Your task to perform on an android device: uninstall "McDonald's" Image 0: 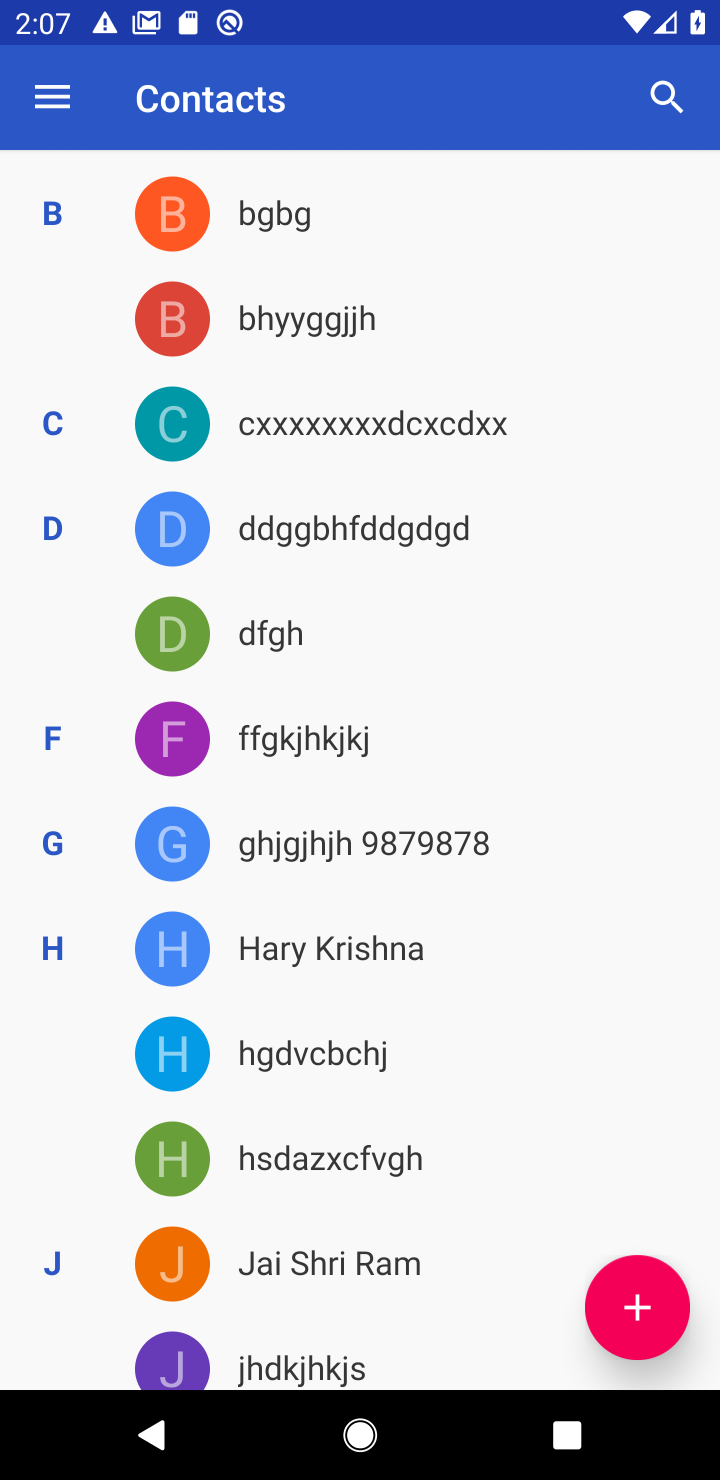
Step 0: press home button
Your task to perform on an android device: uninstall "McDonald's" Image 1: 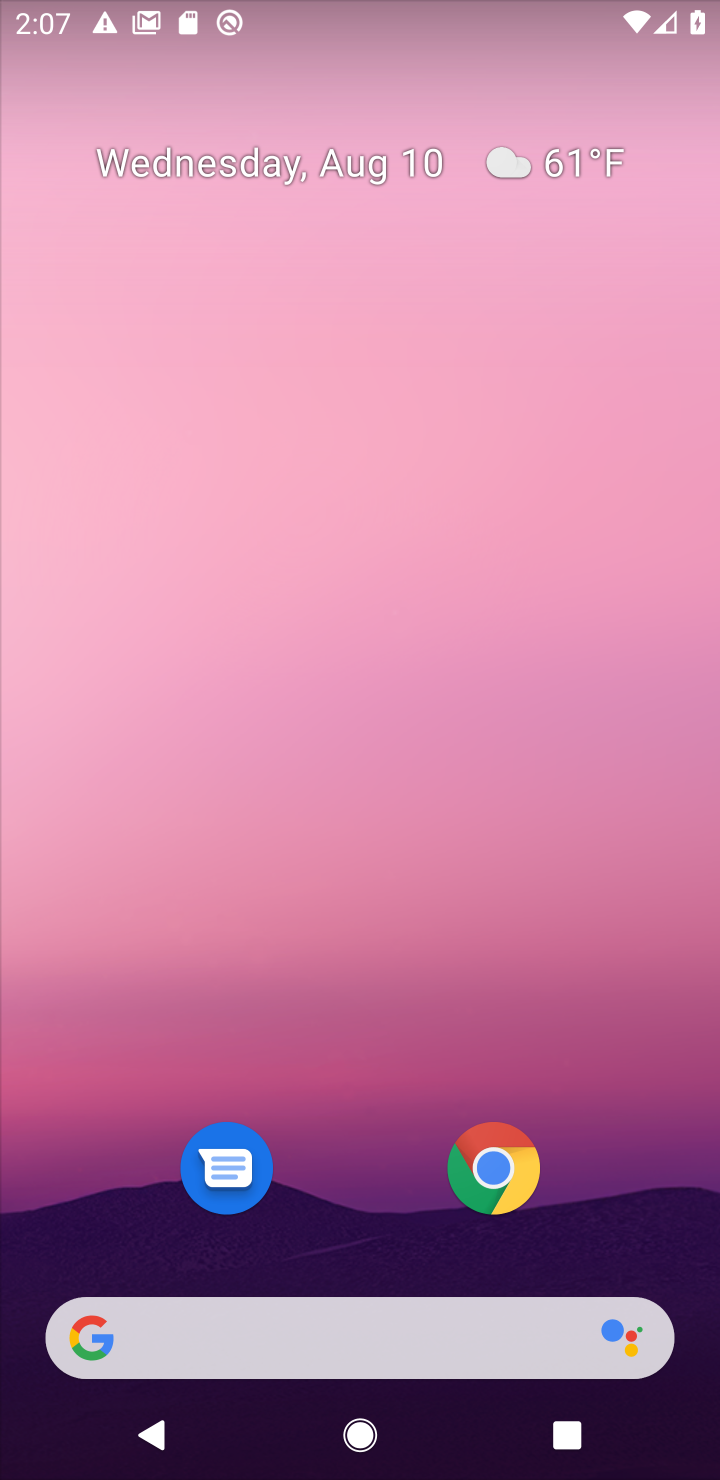
Step 1: drag from (362, 1306) to (418, 180)
Your task to perform on an android device: uninstall "McDonald's" Image 2: 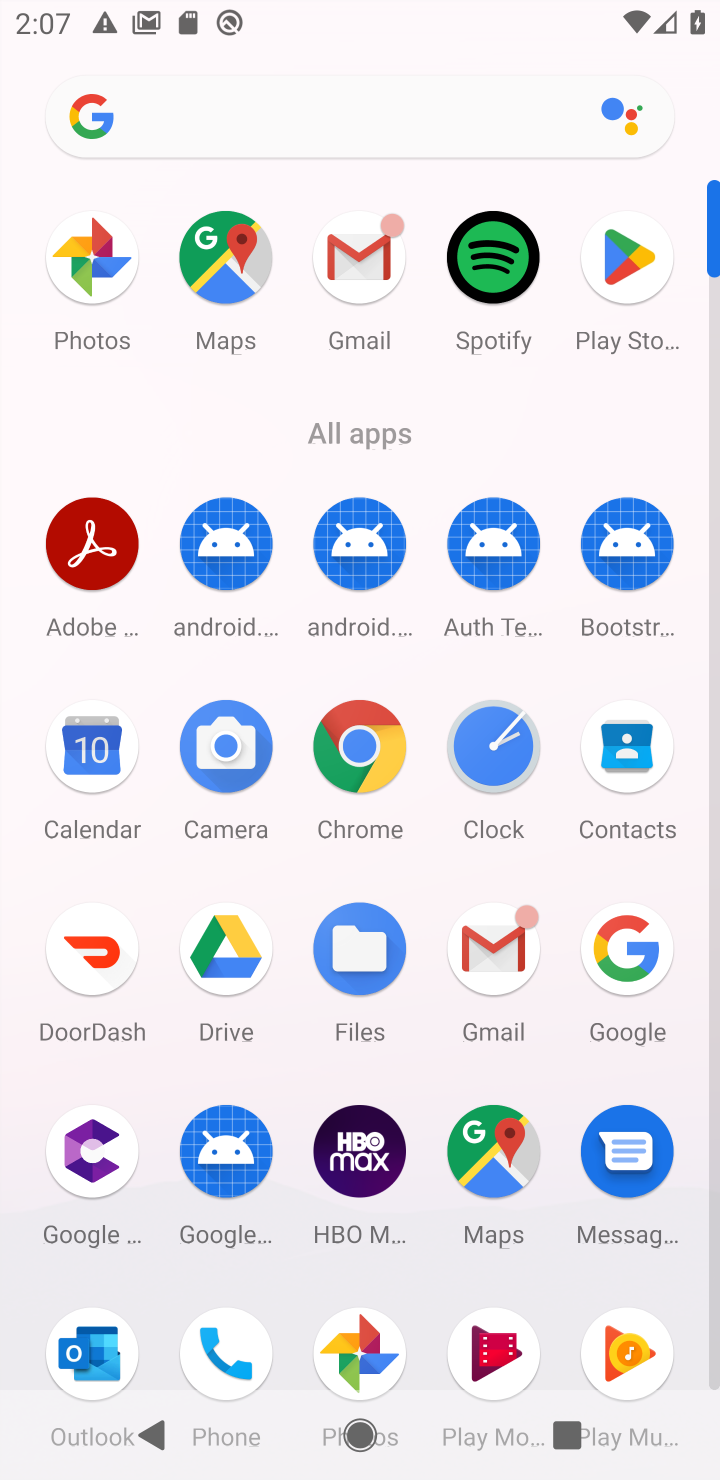
Step 2: click (622, 246)
Your task to perform on an android device: uninstall "McDonald's" Image 3: 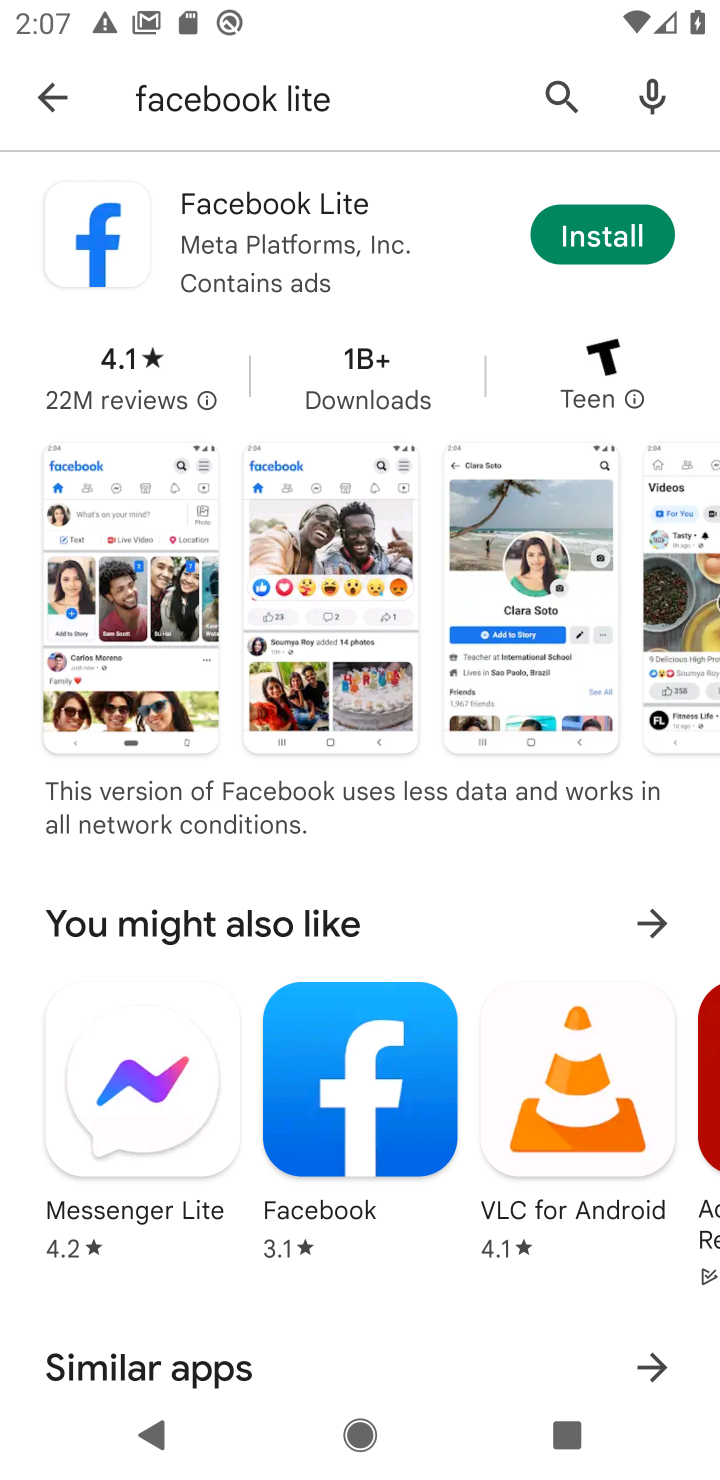
Step 3: press back button
Your task to perform on an android device: uninstall "McDonald's" Image 4: 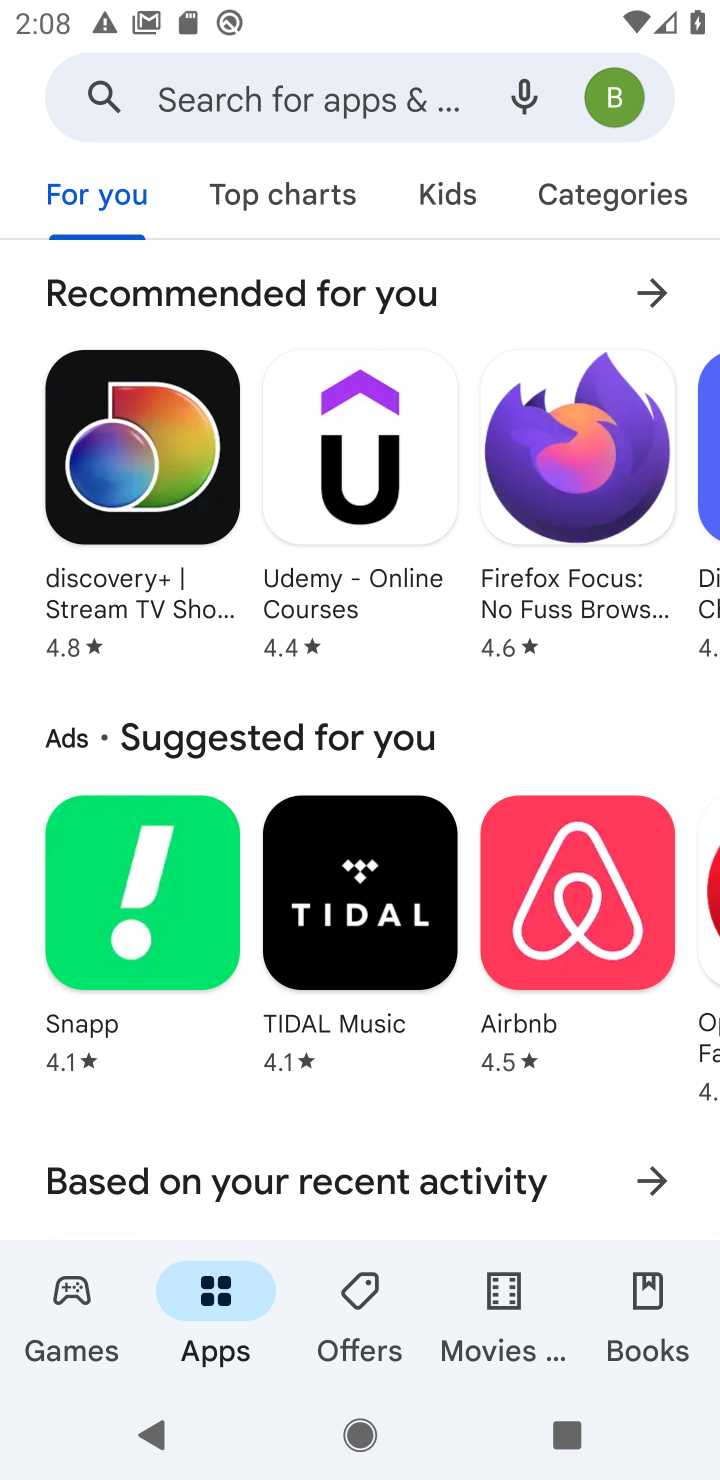
Step 4: click (314, 93)
Your task to perform on an android device: uninstall "McDonald's" Image 5: 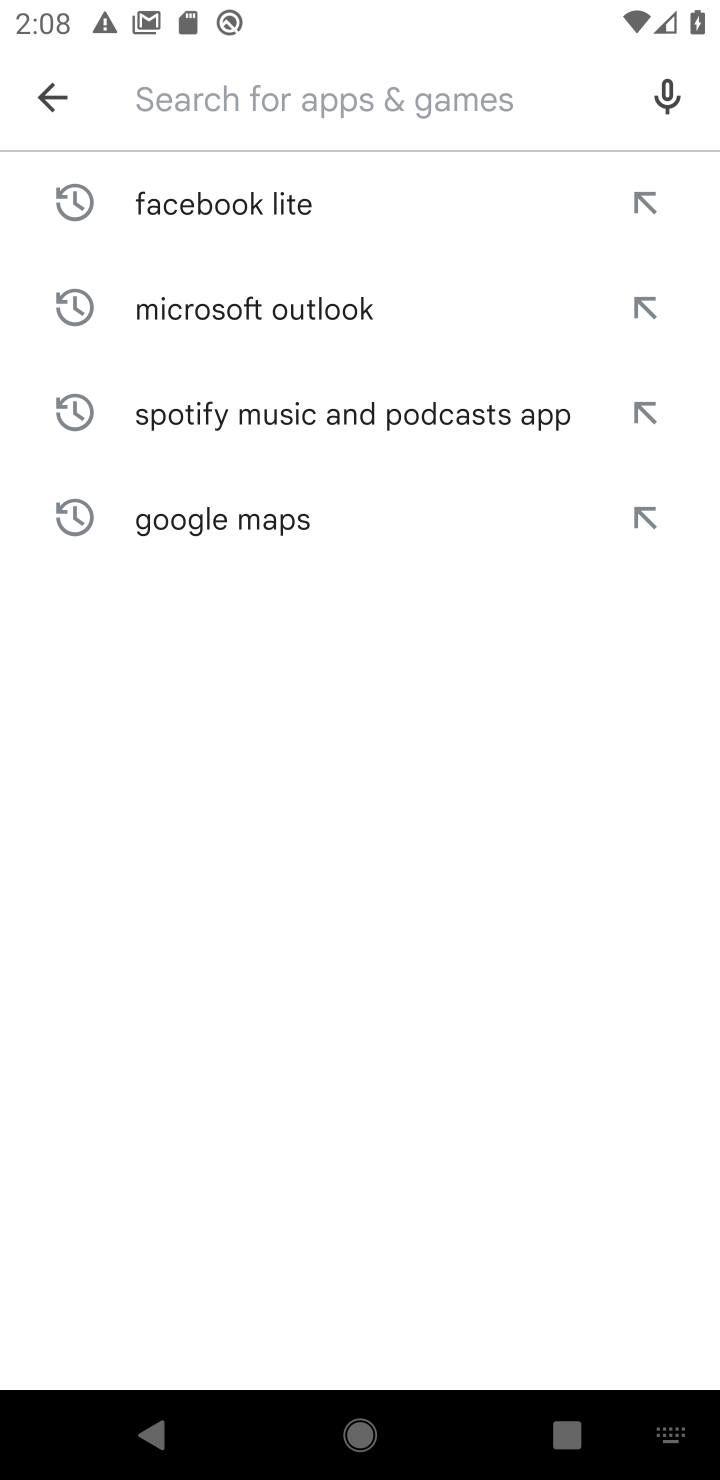
Step 5: type "McDonald's"
Your task to perform on an android device: uninstall "McDonald's" Image 6: 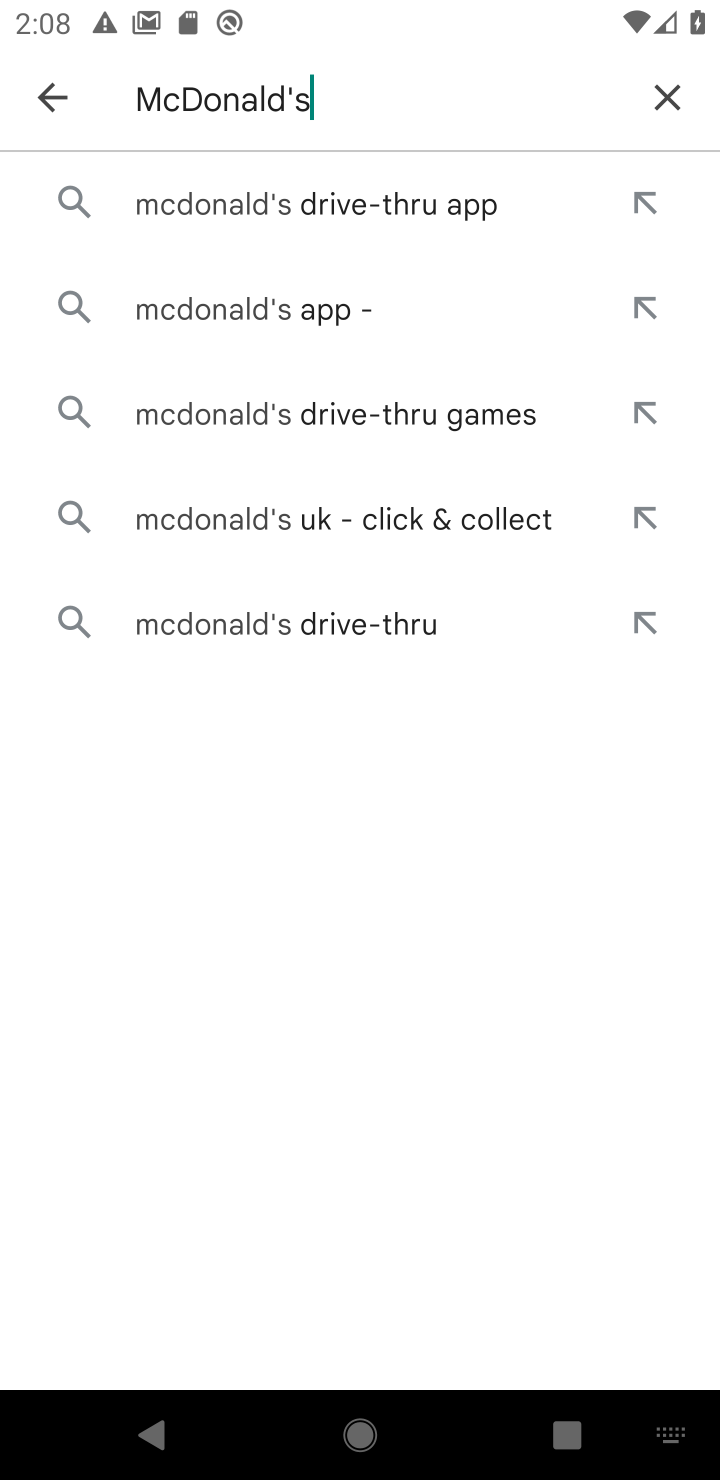
Step 6: click (306, 319)
Your task to perform on an android device: uninstall "McDonald's" Image 7: 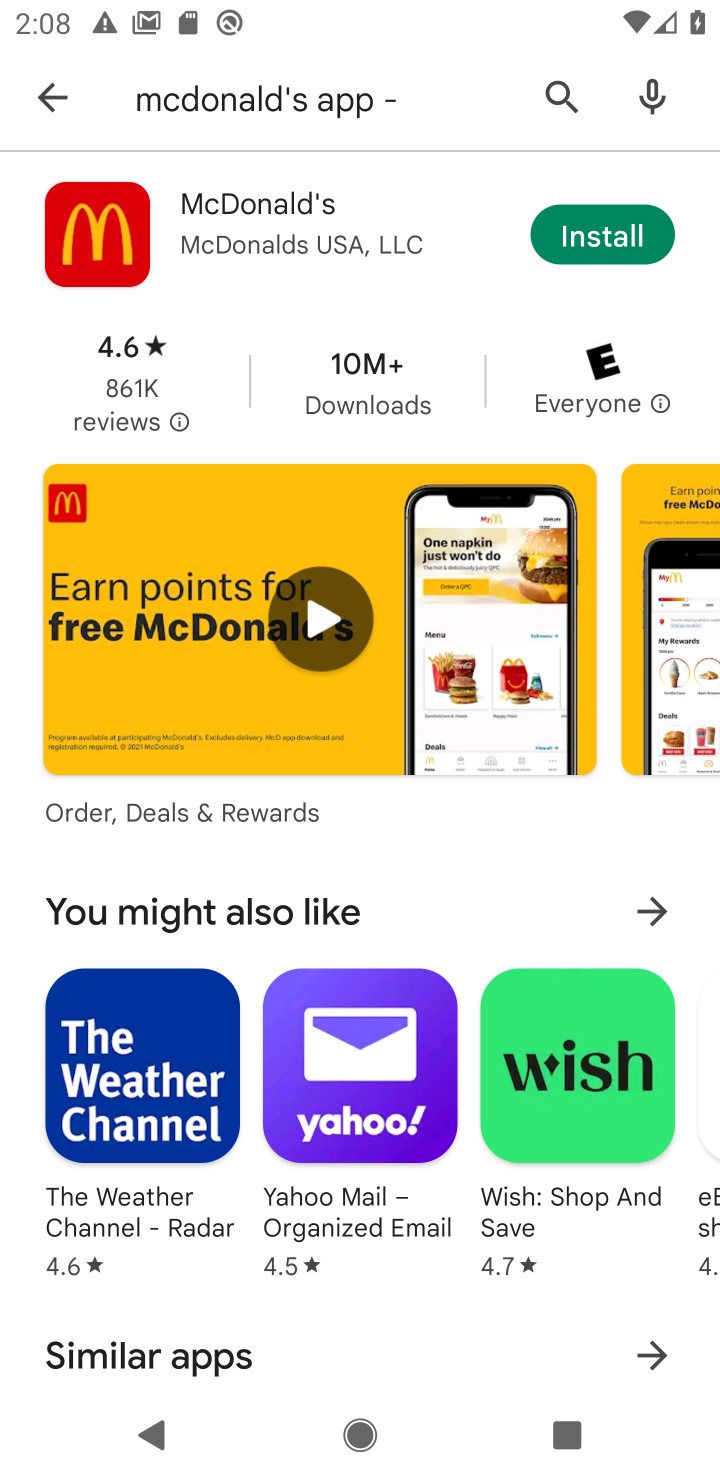
Step 7: task complete